Your task to perform on an android device: Open the stopwatch Image 0: 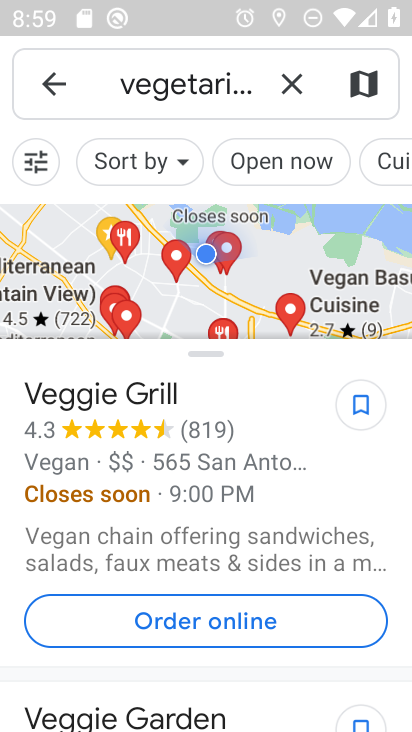
Step 0: press home button
Your task to perform on an android device: Open the stopwatch Image 1: 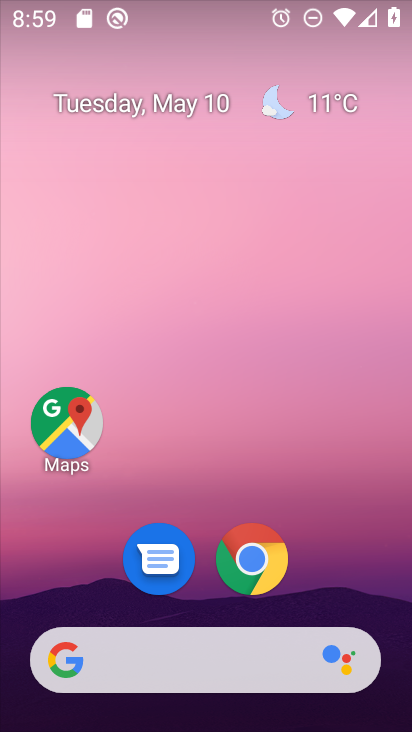
Step 1: drag from (204, 727) to (215, 86)
Your task to perform on an android device: Open the stopwatch Image 2: 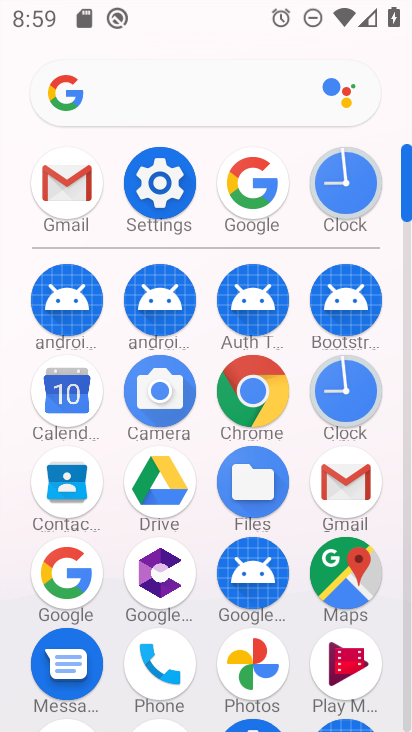
Step 2: click (346, 390)
Your task to perform on an android device: Open the stopwatch Image 3: 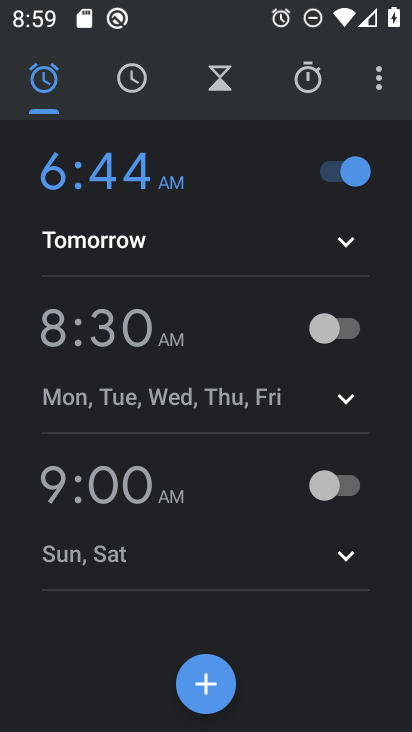
Step 3: click (307, 78)
Your task to perform on an android device: Open the stopwatch Image 4: 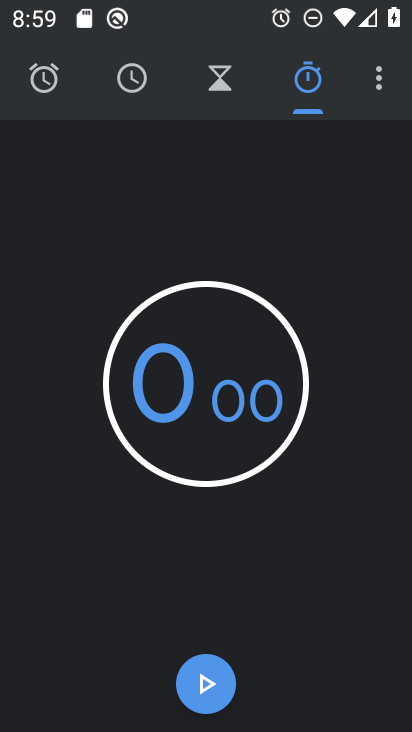
Step 4: task complete